Your task to perform on an android device: toggle location history Image 0: 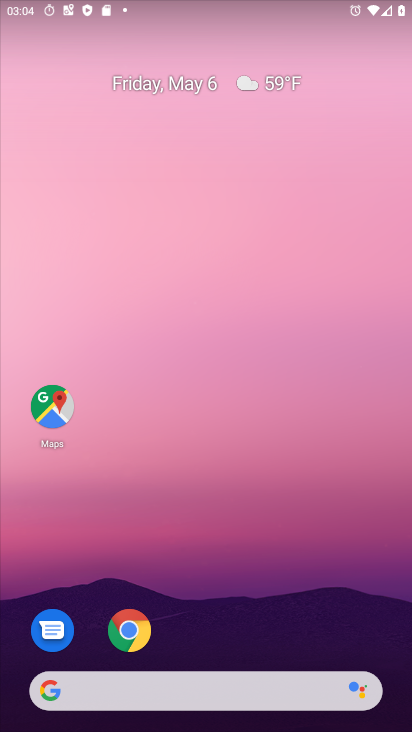
Step 0: drag from (240, 361) to (240, 231)
Your task to perform on an android device: toggle location history Image 1: 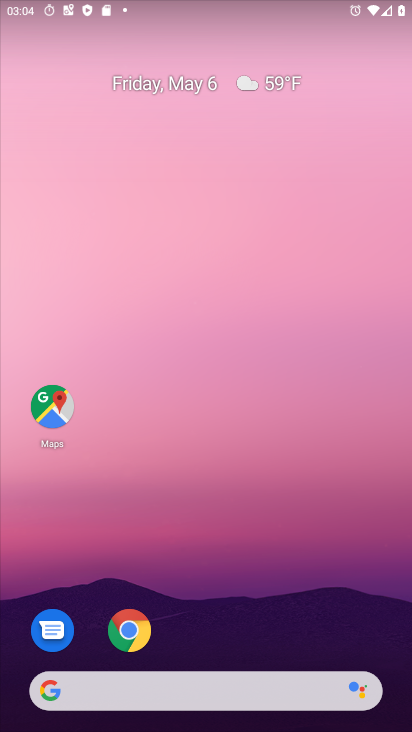
Step 1: drag from (254, 111) to (254, 27)
Your task to perform on an android device: toggle location history Image 2: 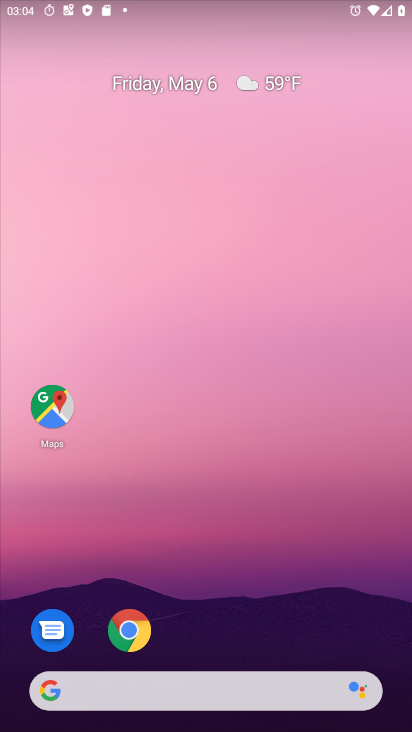
Step 2: drag from (214, 633) to (217, 101)
Your task to perform on an android device: toggle location history Image 3: 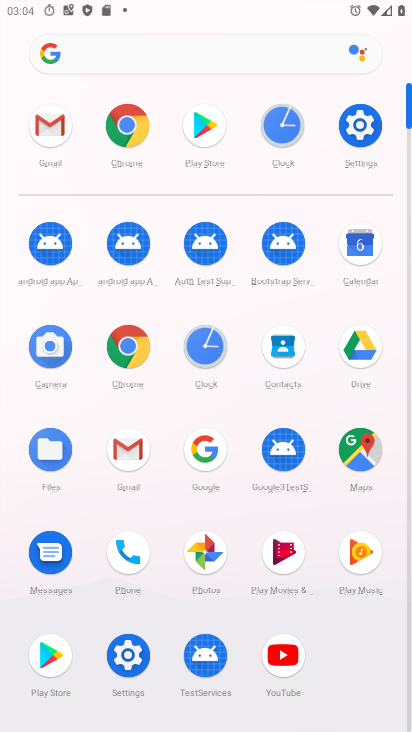
Step 3: click (359, 113)
Your task to perform on an android device: toggle location history Image 4: 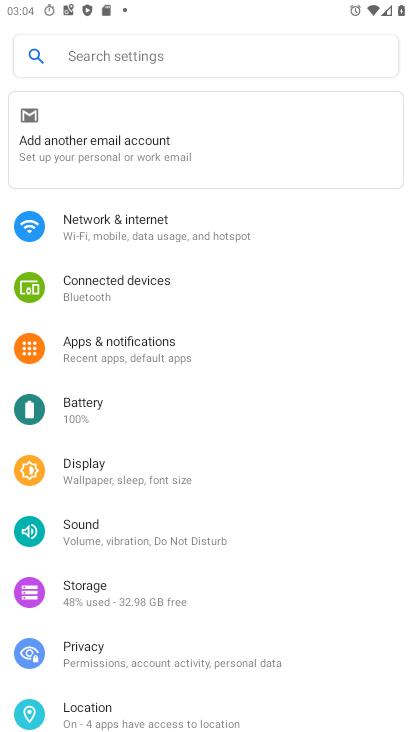
Step 4: click (116, 708)
Your task to perform on an android device: toggle location history Image 5: 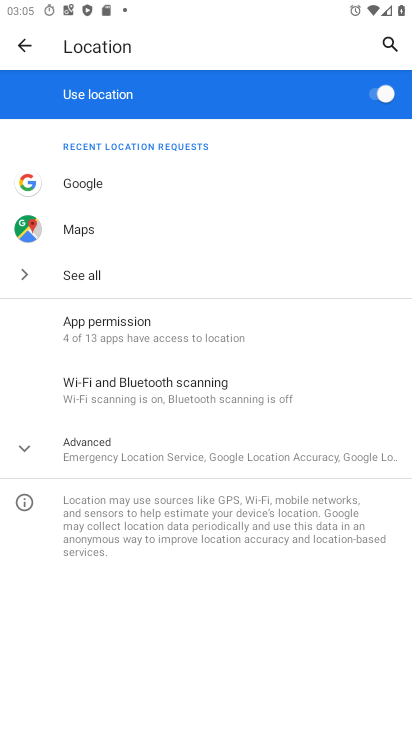
Step 5: click (152, 448)
Your task to perform on an android device: toggle location history Image 6: 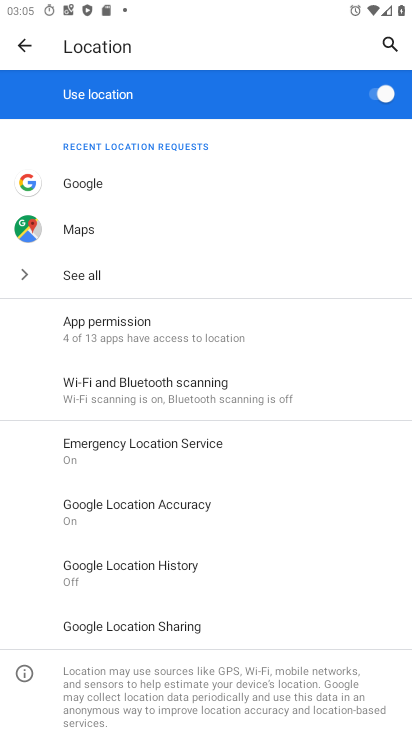
Step 6: click (174, 572)
Your task to perform on an android device: toggle location history Image 7: 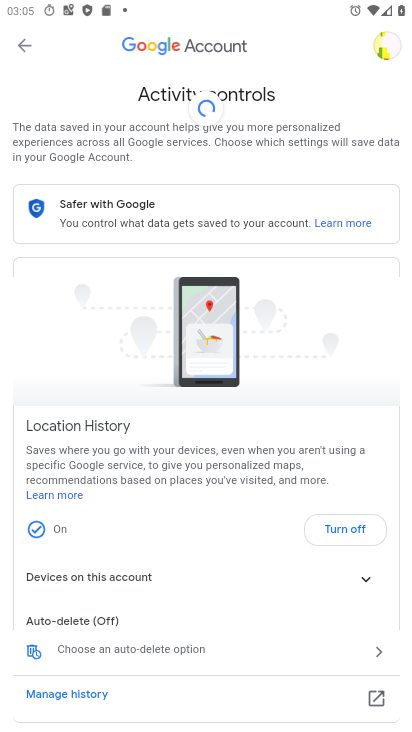
Step 7: click (332, 521)
Your task to perform on an android device: toggle location history Image 8: 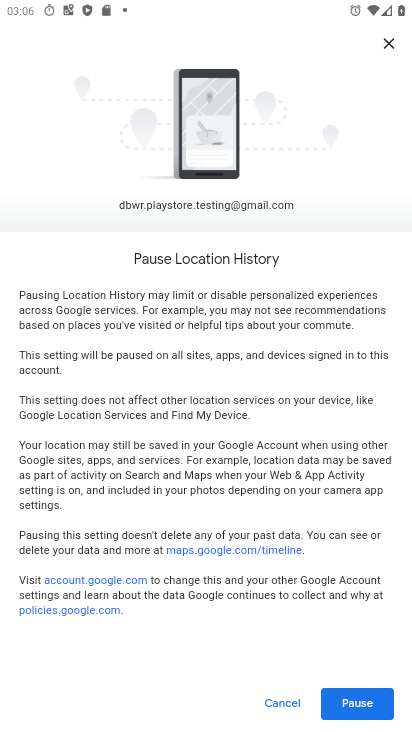
Step 8: click (337, 708)
Your task to perform on an android device: toggle location history Image 9: 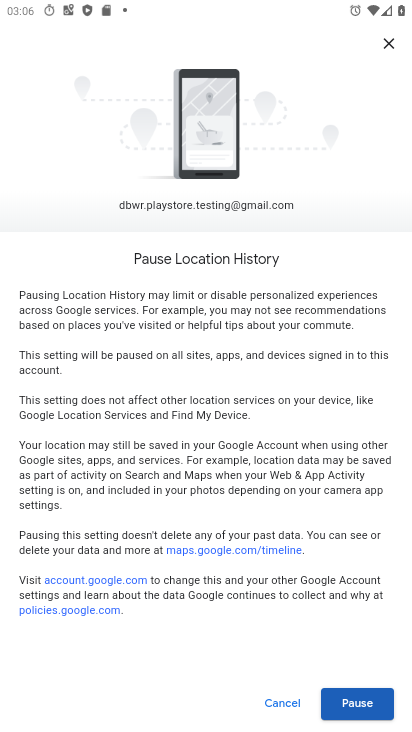
Step 9: click (350, 704)
Your task to perform on an android device: toggle location history Image 10: 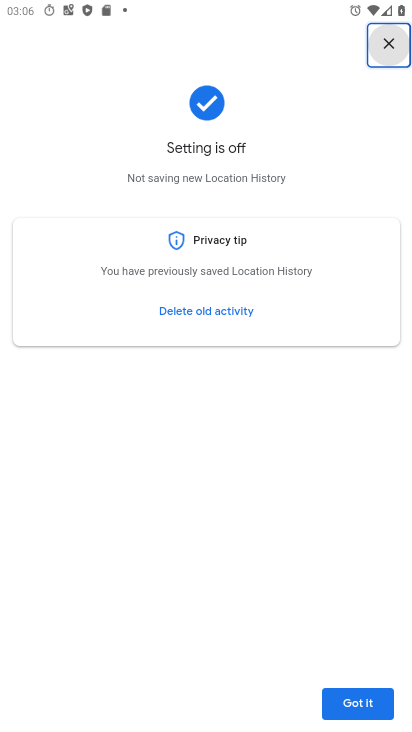
Step 10: task complete